Your task to perform on an android device: Go to Wikipedia Image 0: 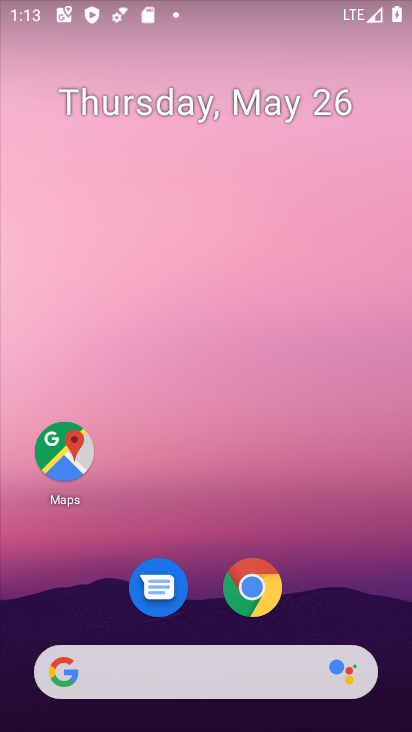
Step 0: drag from (376, 593) to (380, 241)
Your task to perform on an android device: Go to Wikipedia Image 1: 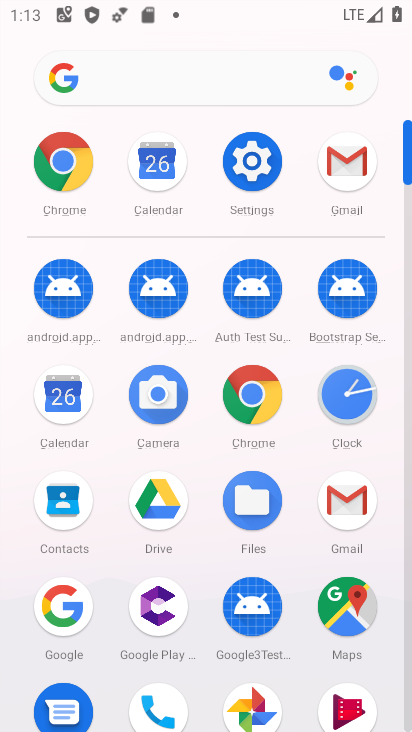
Step 1: click (261, 413)
Your task to perform on an android device: Go to Wikipedia Image 2: 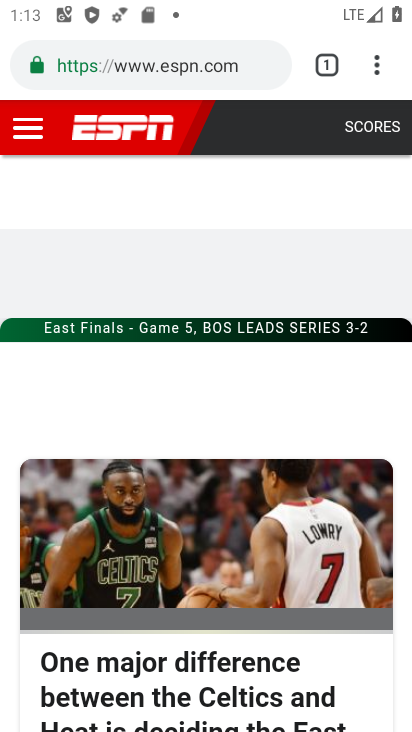
Step 2: press back button
Your task to perform on an android device: Go to Wikipedia Image 3: 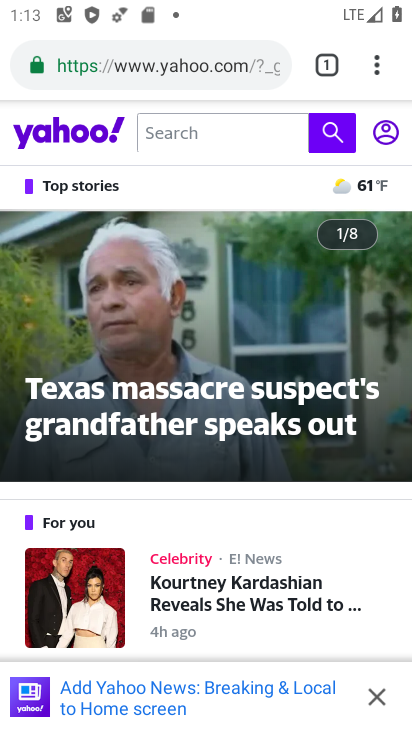
Step 3: press back button
Your task to perform on an android device: Go to Wikipedia Image 4: 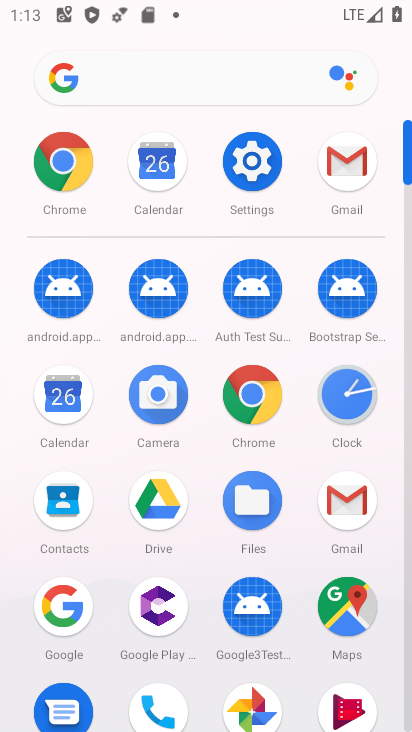
Step 4: click (263, 408)
Your task to perform on an android device: Go to Wikipedia Image 5: 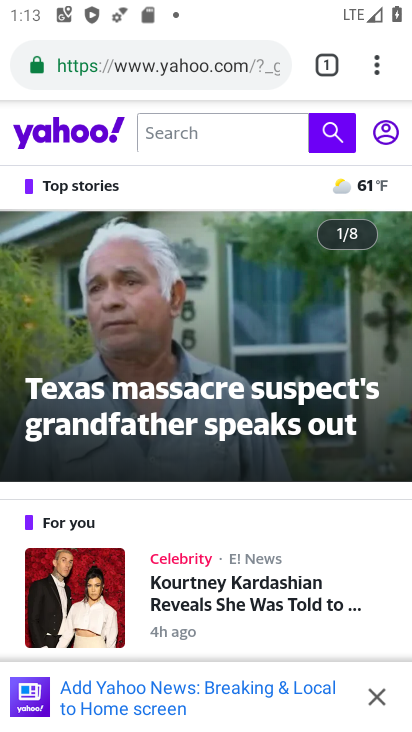
Step 5: click (175, 65)
Your task to perform on an android device: Go to Wikipedia Image 6: 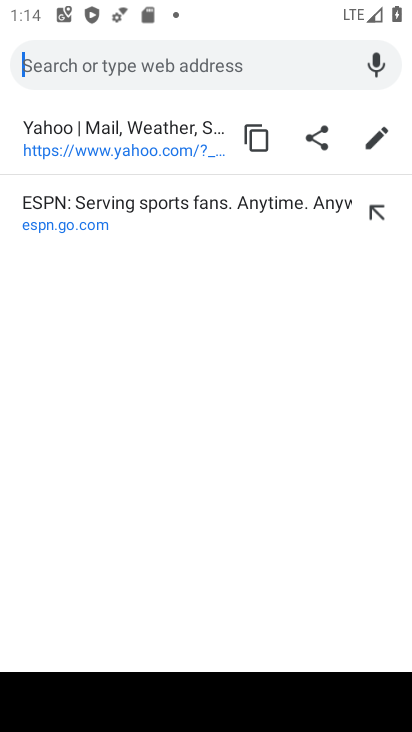
Step 6: type "wikipedia"
Your task to perform on an android device: Go to Wikipedia Image 7: 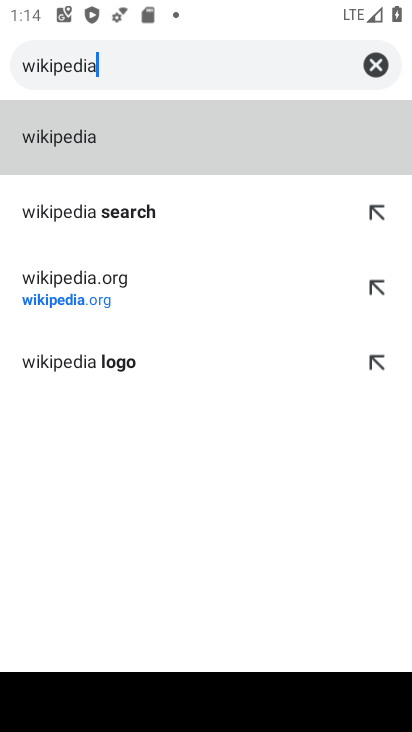
Step 7: click (102, 141)
Your task to perform on an android device: Go to Wikipedia Image 8: 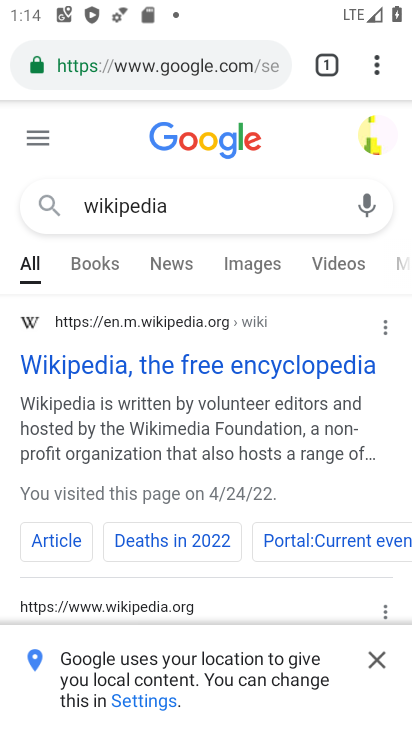
Step 8: task complete